Your task to perform on an android device: Open accessibility settings Image 0: 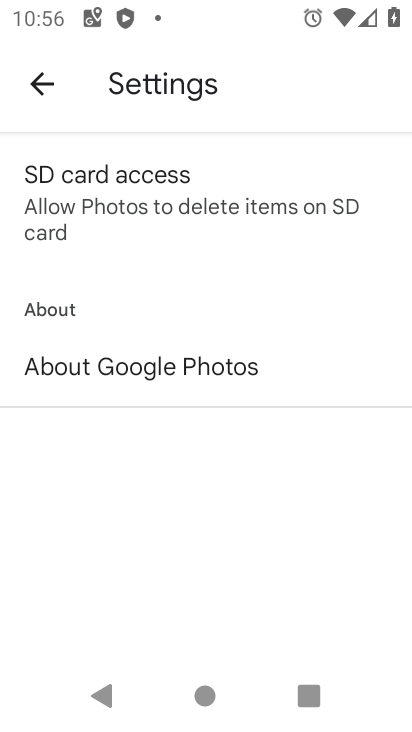
Step 0: press home button
Your task to perform on an android device: Open accessibility settings Image 1: 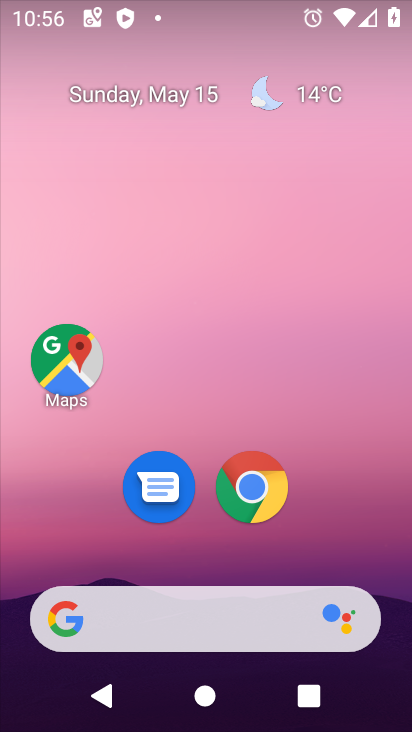
Step 1: drag from (401, 610) to (368, 101)
Your task to perform on an android device: Open accessibility settings Image 2: 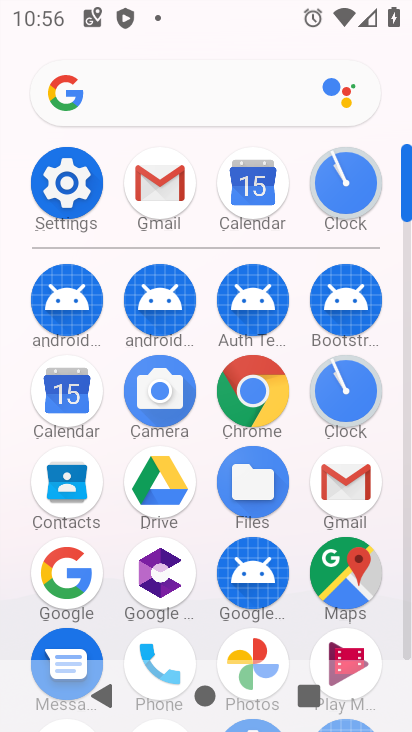
Step 2: click (408, 641)
Your task to perform on an android device: Open accessibility settings Image 3: 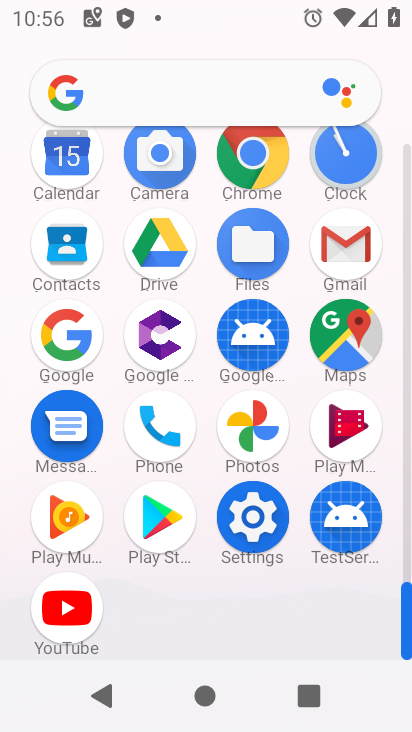
Step 3: click (254, 517)
Your task to perform on an android device: Open accessibility settings Image 4: 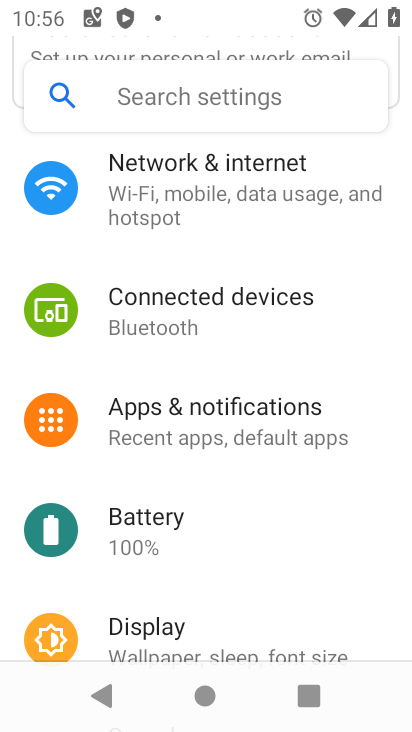
Step 4: drag from (320, 619) to (343, 113)
Your task to perform on an android device: Open accessibility settings Image 5: 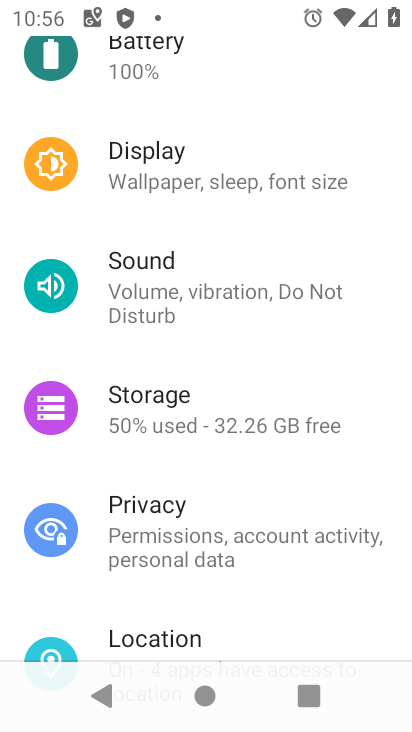
Step 5: drag from (360, 566) to (323, 139)
Your task to perform on an android device: Open accessibility settings Image 6: 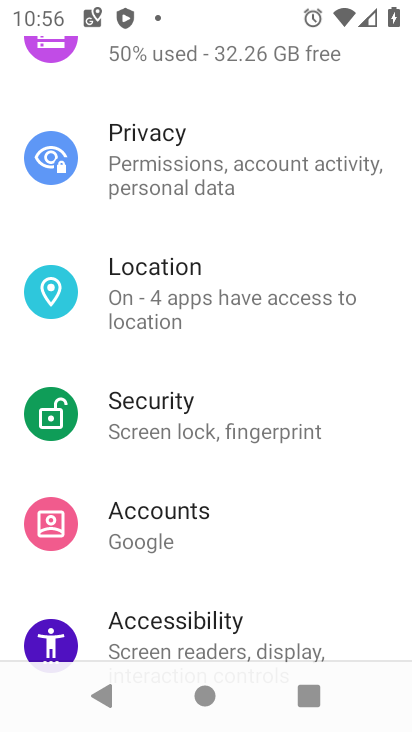
Step 6: drag from (328, 613) to (319, 222)
Your task to perform on an android device: Open accessibility settings Image 7: 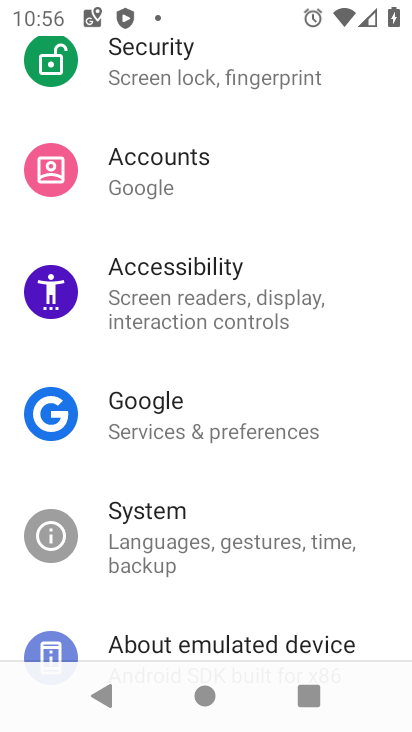
Step 7: click (170, 291)
Your task to perform on an android device: Open accessibility settings Image 8: 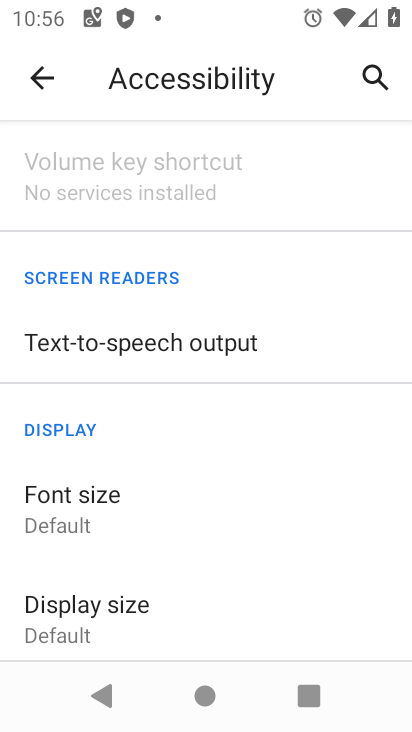
Step 8: task complete